Your task to perform on an android device: open a new tab in the chrome app Image 0: 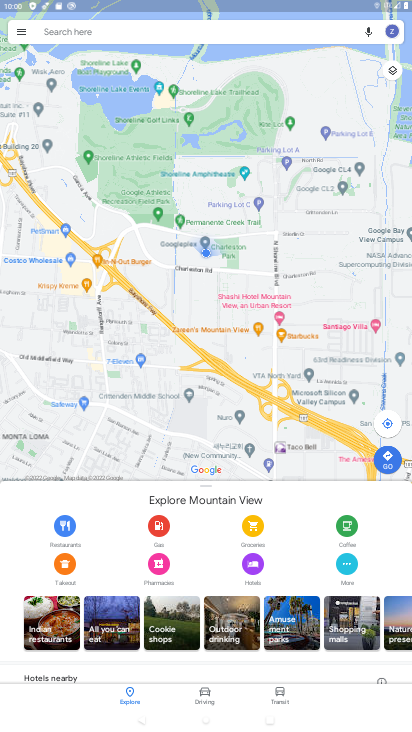
Step 0: press home button
Your task to perform on an android device: open a new tab in the chrome app Image 1: 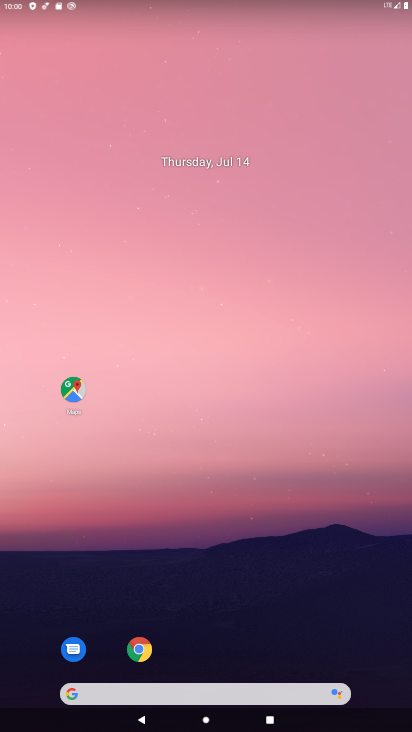
Step 1: click (146, 647)
Your task to perform on an android device: open a new tab in the chrome app Image 2: 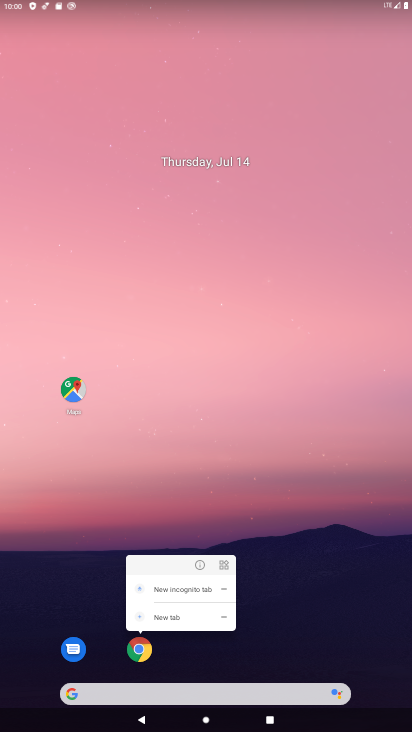
Step 2: click (148, 641)
Your task to perform on an android device: open a new tab in the chrome app Image 3: 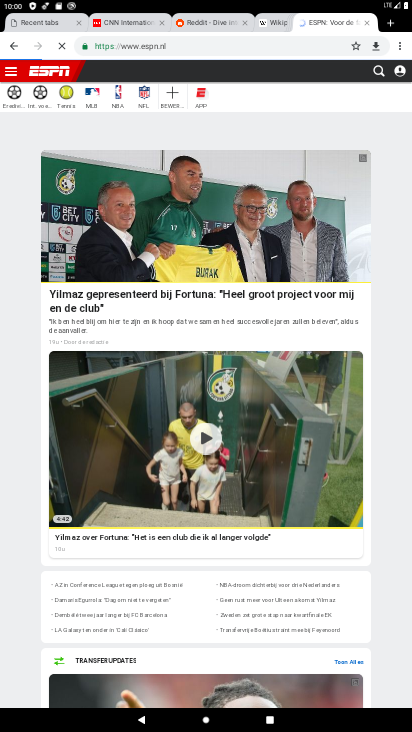
Step 3: click (389, 22)
Your task to perform on an android device: open a new tab in the chrome app Image 4: 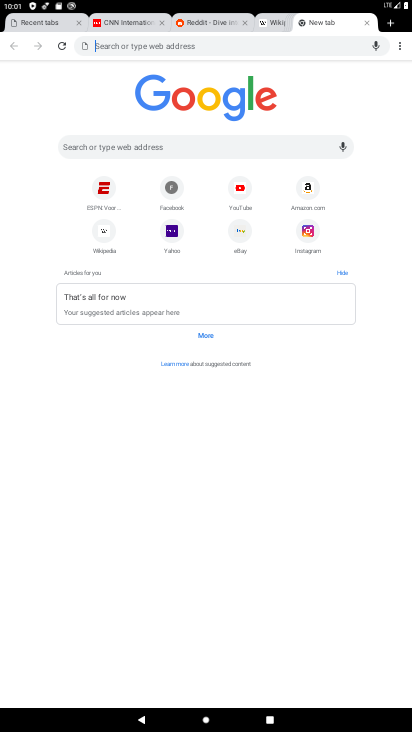
Step 4: task complete